Your task to perform on an android device: open device folders in google photos Image 0: 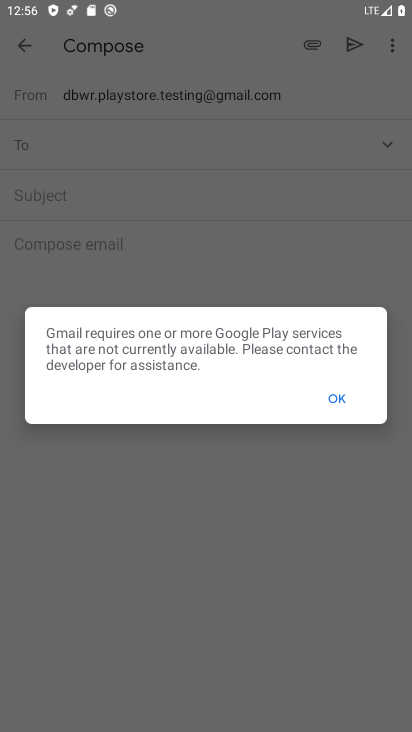
Step 0: press home button
Your task to perform on an android device: open device folders in google photos Image 1: 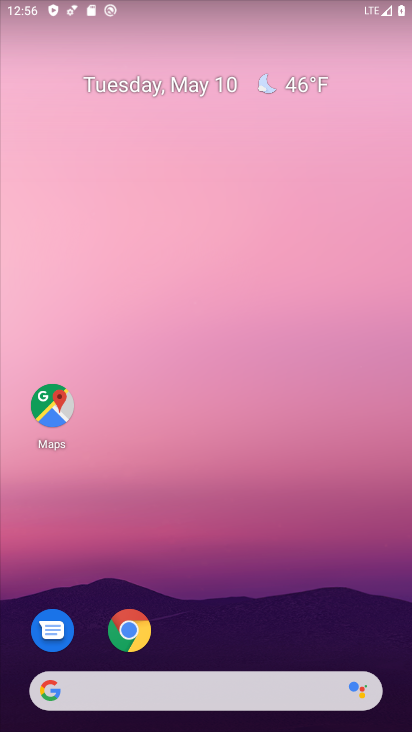
Step 1: drag from (210, 647) to (155, 72)
Your task to perform on an android device: open device folders in google photos Image 2: 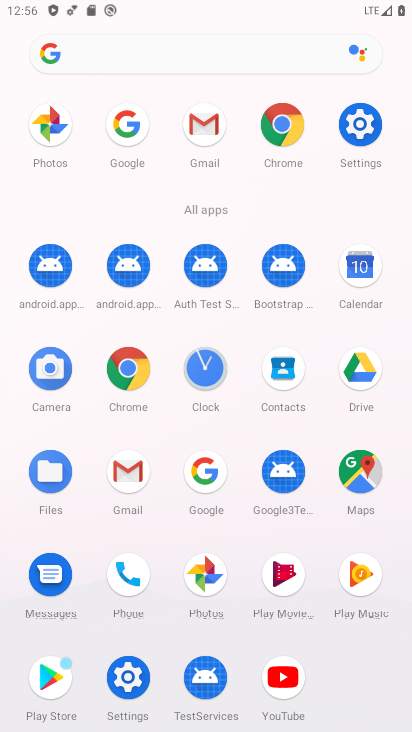
Step 2: click (207, 574)
Your task to perform on an android device: open device folders in google photos Image 3: 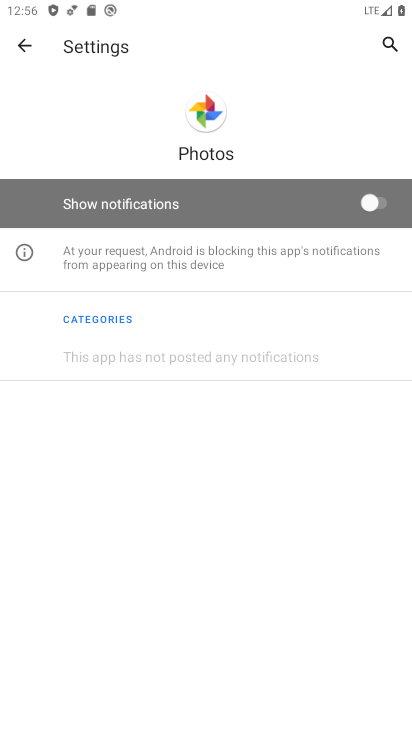
Step 3: click (30, 63)
Your task to perform on an android device: open device folders in google photos Image 4: 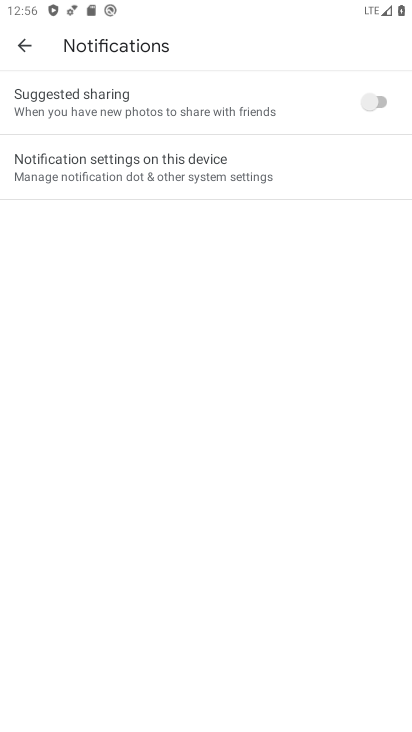
Step 4: click (38, 41)
Your task to perform on an android device: open device folders in google photos Image 5: 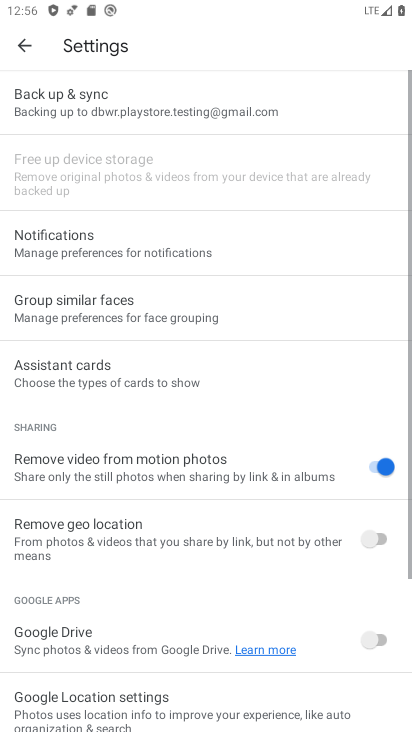
Step 5: click (36, 48)
Your task to perform on an android device: open device folders in google photos Image 6: 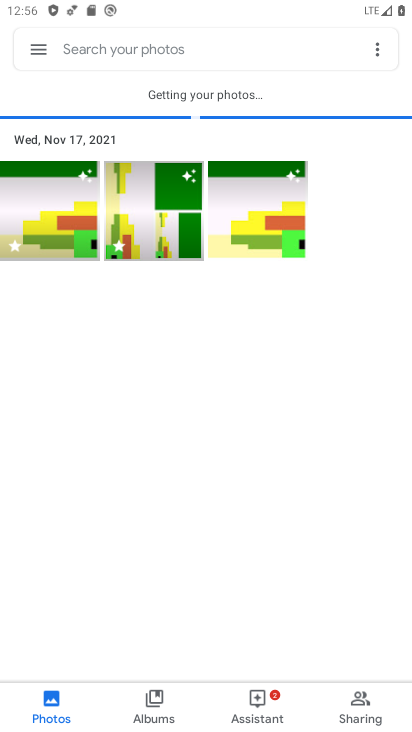
Step 6: click (36, 48)
Your task to perform on an android device: open device folders in google photos Image 7: 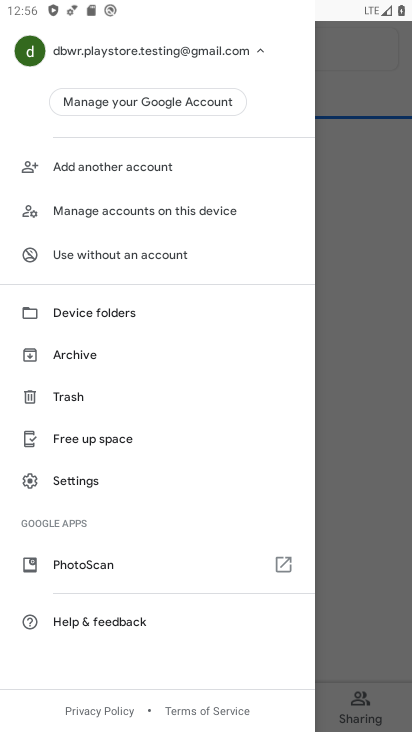
Step 7: click (106, 301)
Your task to perform on an android device: open device folders in google photos Image 8: 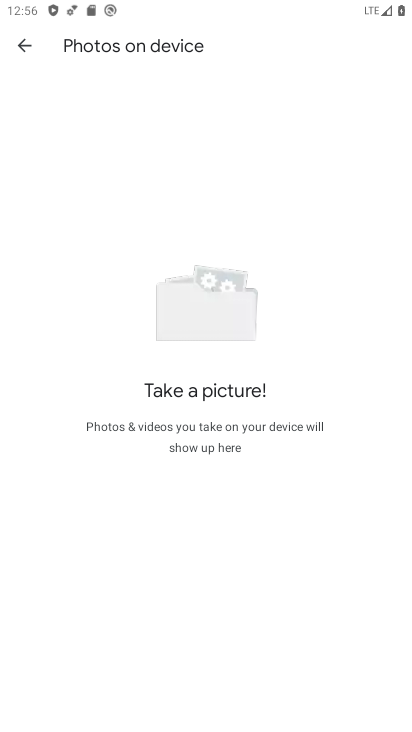
Step 8: task complete